Your task to perform on an android device: open app "ColorNote Notepad Notes" (install if not already installed) Image 0: 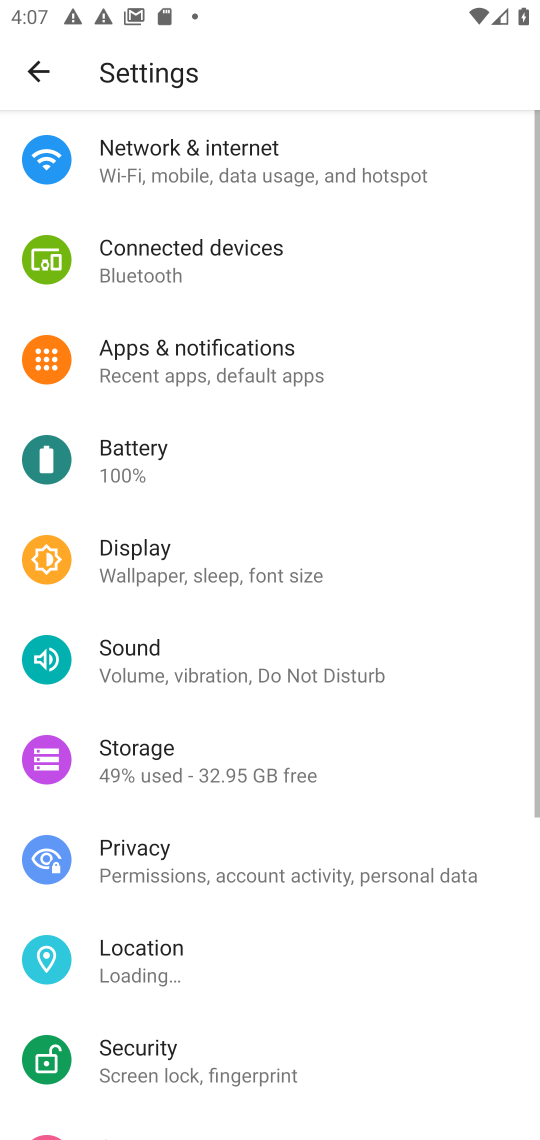
Step 0: press home button
Your task to perform on an android device: open app "ColorNote Notepad Notes" (install if not already installed) Image 1: 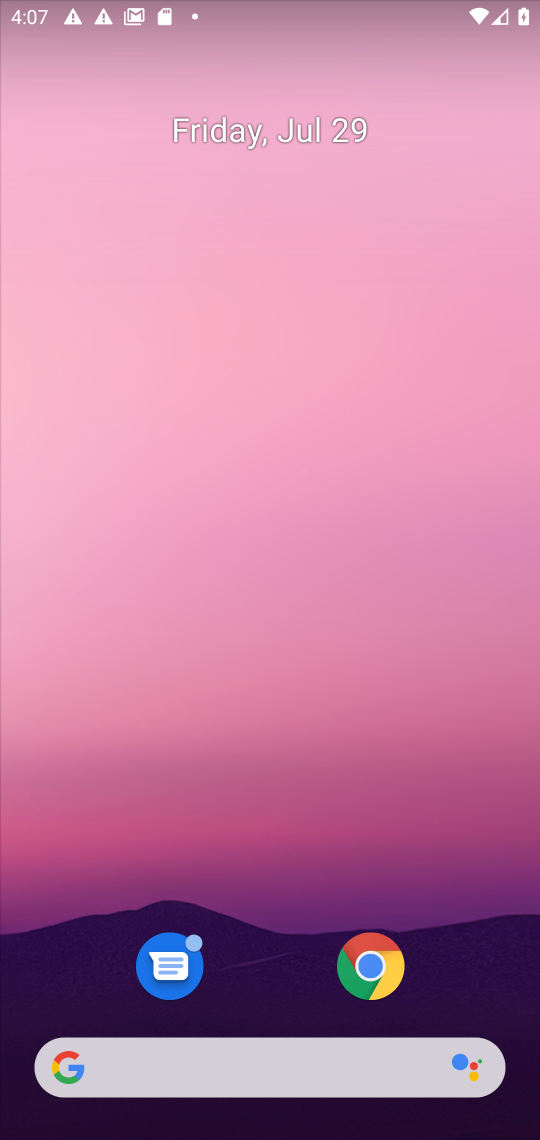
Step 1: drag from (195, 586) to (254, 128)
Your task to perform on an android device: open app "ColorNote Notepad Notes" (install if not already installed) Image 2: 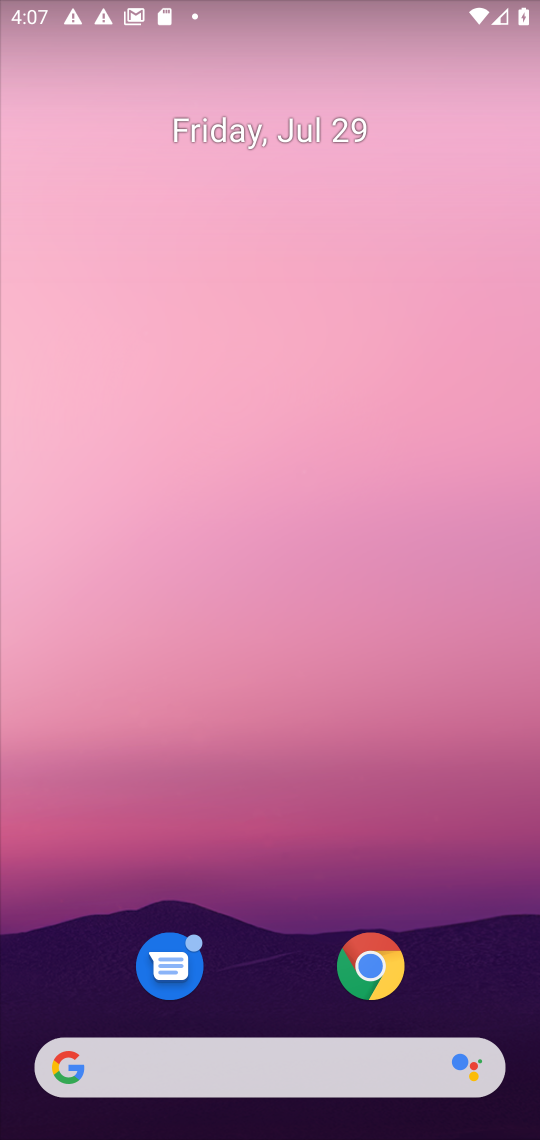
Step 2: drag from (290, 1005) to (189, 9)
Your task to perform on an android device: open app "ColorNote Notepad Notes" (install if not already installed) Image 3: 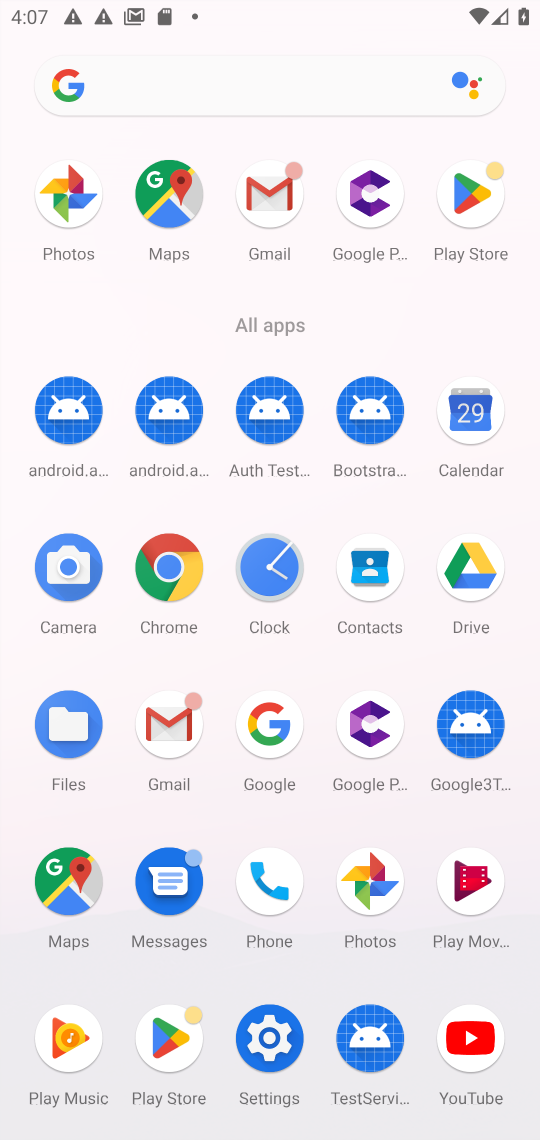
Step 3: click (164, 1038)
Your task to perform on an android device: open app "ColorNote Notepad Notes" (install if not already installed) Image 4: 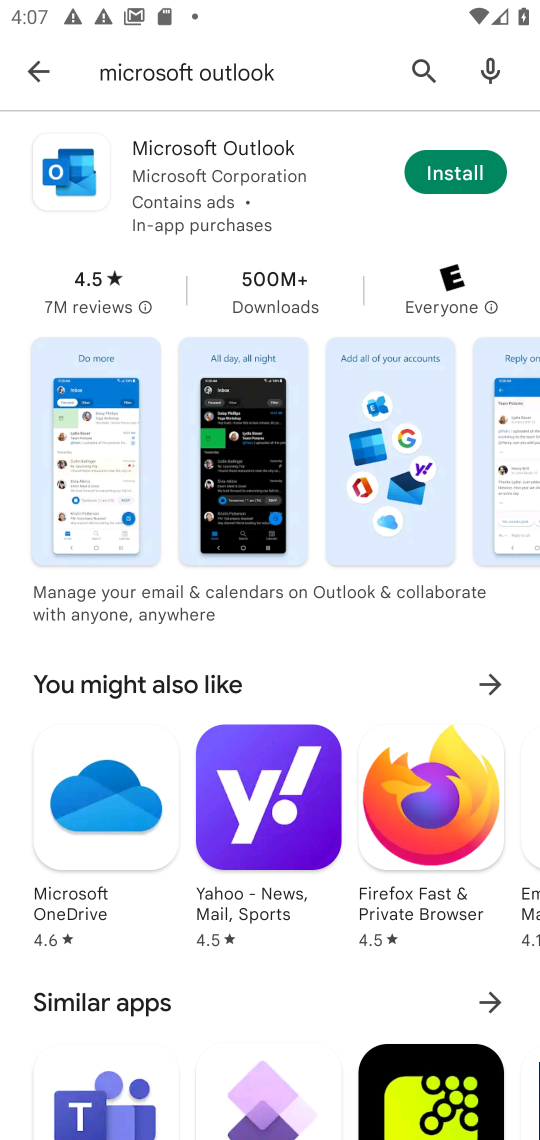
Step 4: click (225, 61)
Your task to perform on an android device: open app "ColorNote Notepad Notes" (install if not already installed) Image 5: 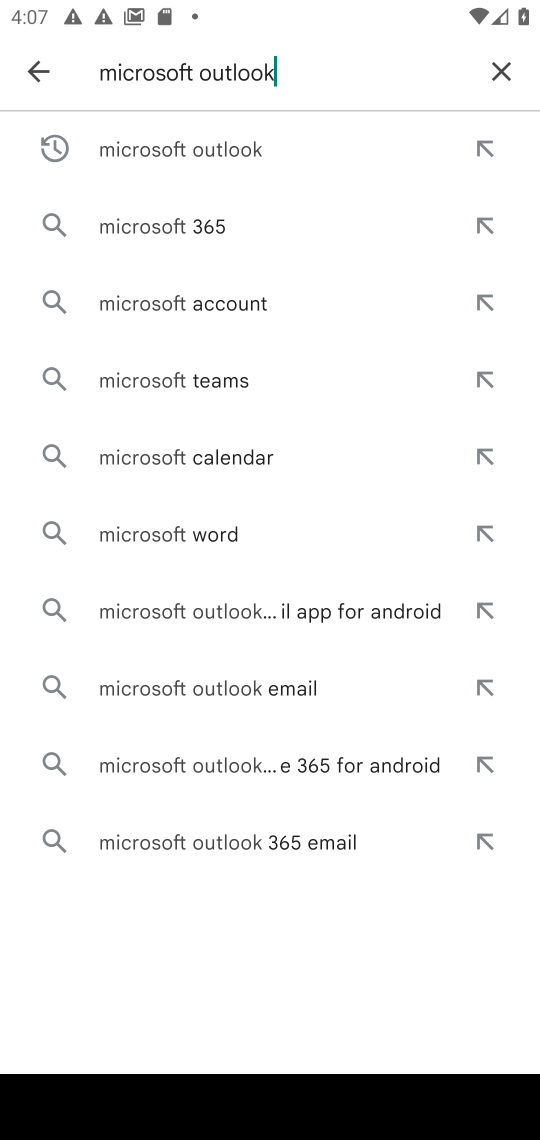
Step 5: click (503, 63)
Your task to perform on an android device: open app "ColorNote Notepad Notes" (install if not already installed) Image 6: 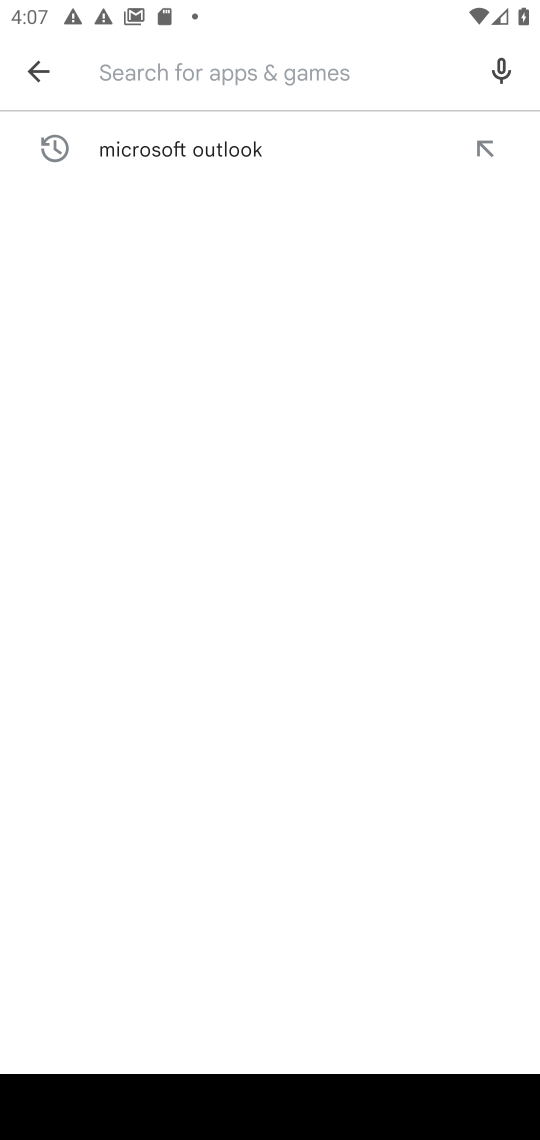
Step 6: type "ColorNote Notepad Notes"
Your task to perform on an android device: open app "ColorNote Notepad Notes" (install if not already installed) Image 7: 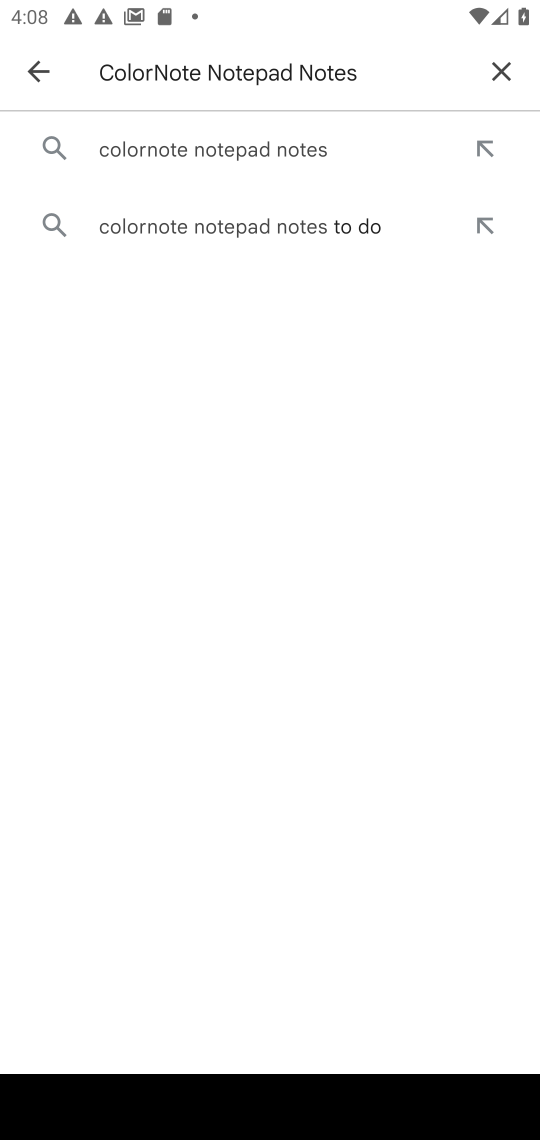
Step 7: click (285, 154)
Your task to perform on an android device: open app "ColorNote Notepad Notes" (install if not already installed) Image 8: 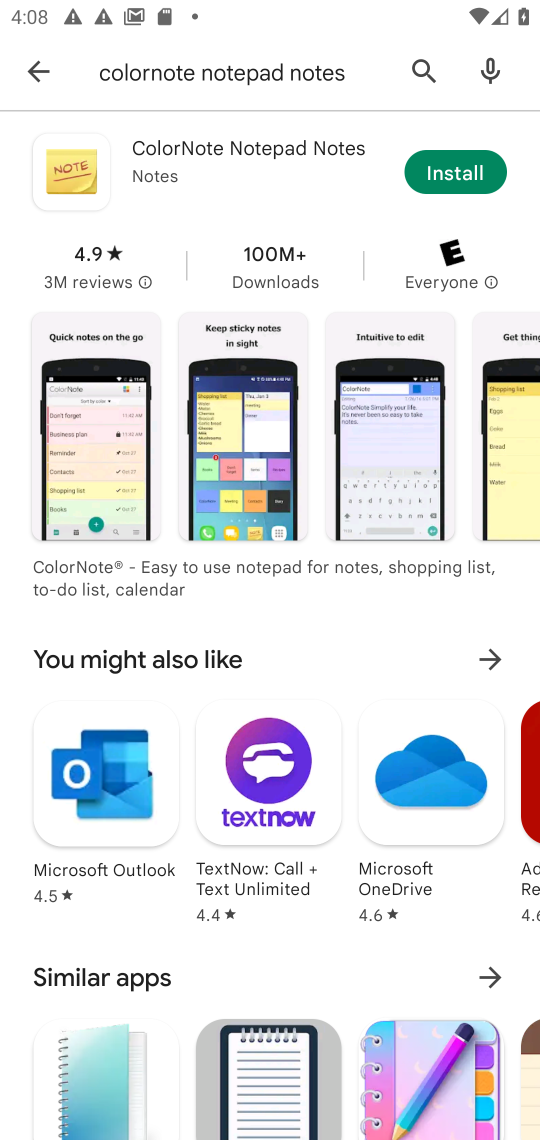
Step 8: click (471, 170)
Your task to perform on an android device: open app "ColorNote Notepad Notes" (install if not already installed) Image 9: 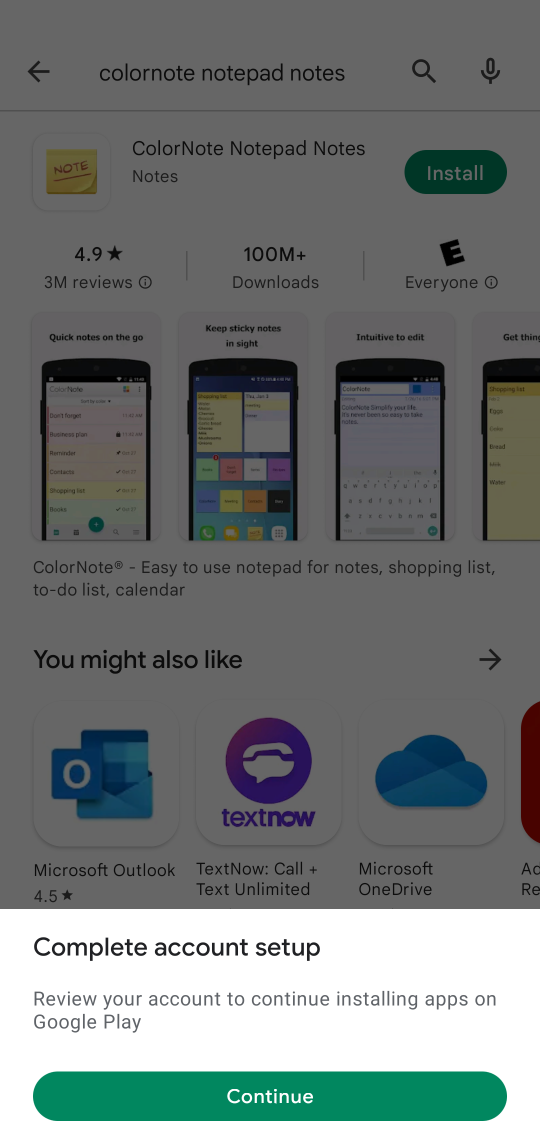
Step 9: click (170, 1103)
Your task to perform on an android device: open app "ColorNote Notepad Notes" (install if not already installed) Image 10: 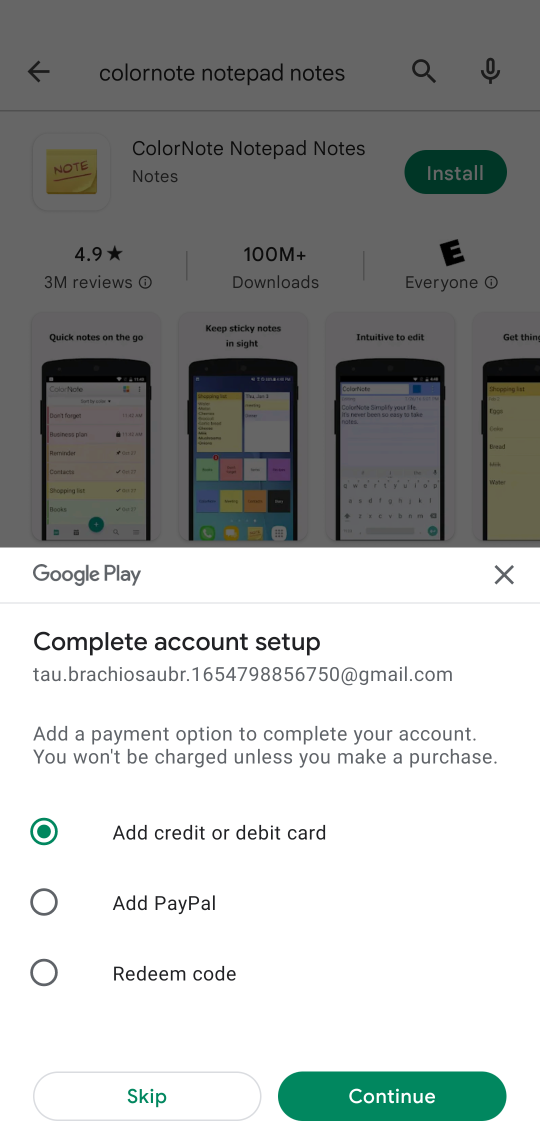
Step 10: click (140, 1066)
Your task to perform on an android device: open app "ColorNote Notepad Notes" (install if not already installed) Image 11: 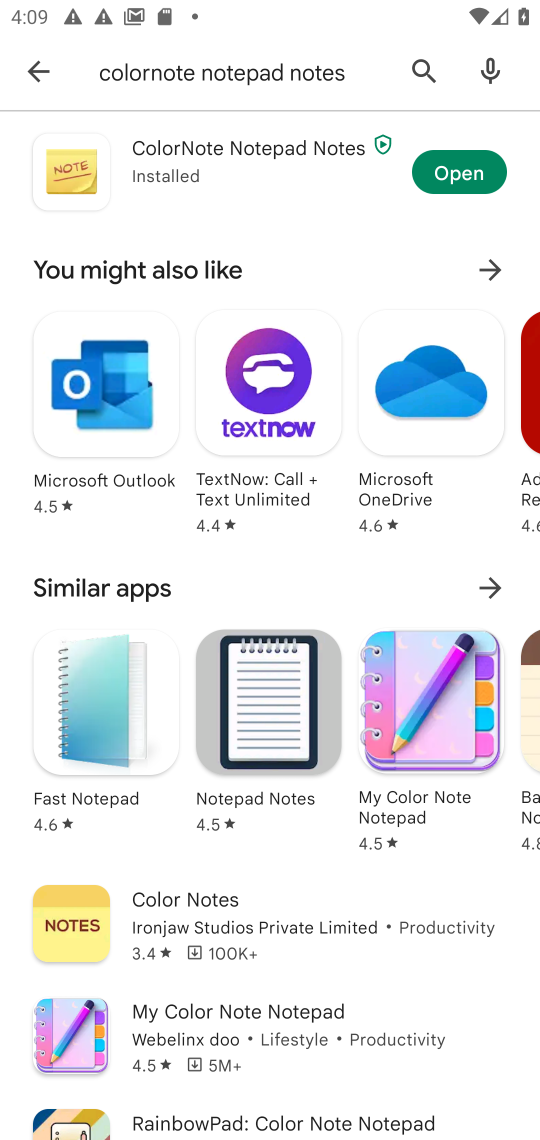
Step 11: click (468, 183)
Your task to perform on an android device: open app "ColorNote Notepad Notes" (install if not already installed) Image 12: 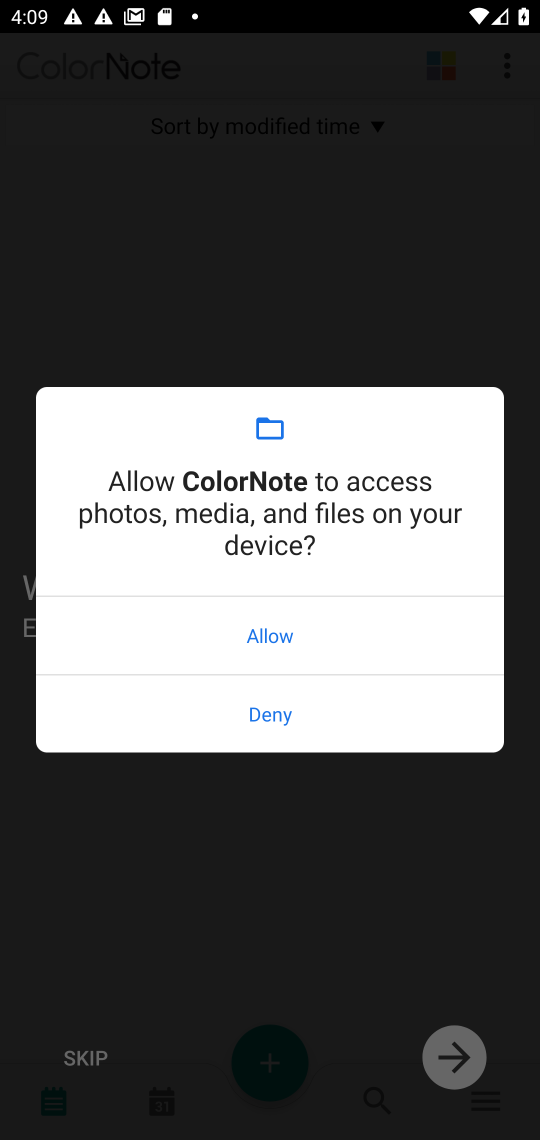
Step 12: click (275, 641)
Your task to perform on an android device: open app "ColorNote Notepad Notes" (install if not already installed) Image 13: 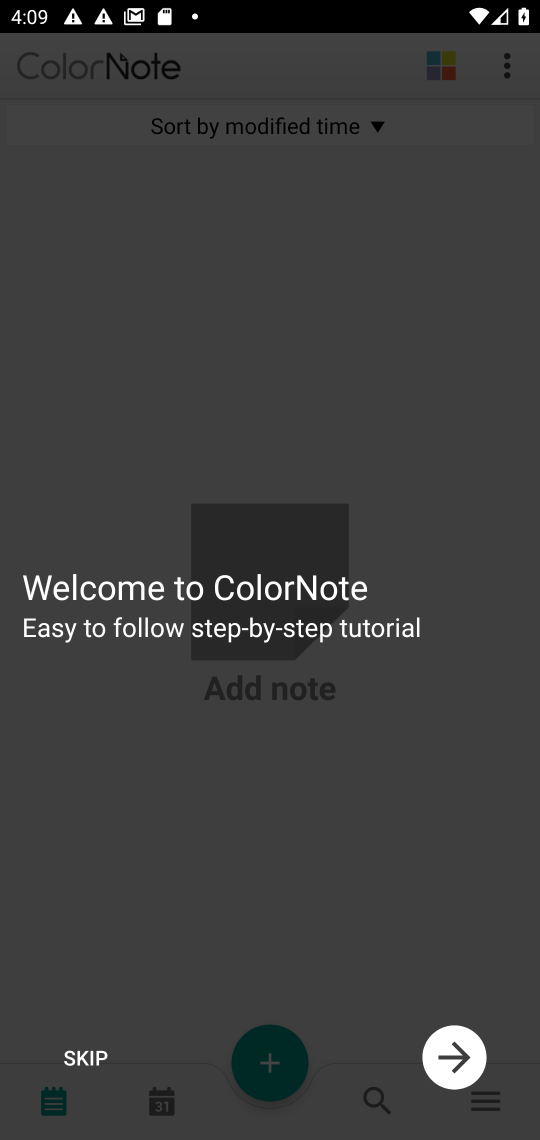
Step 13: click (81, 1056)
Your task to perform on an android device: open app "ColorNote Notepad Notes" (install if not already installed) Image 14: 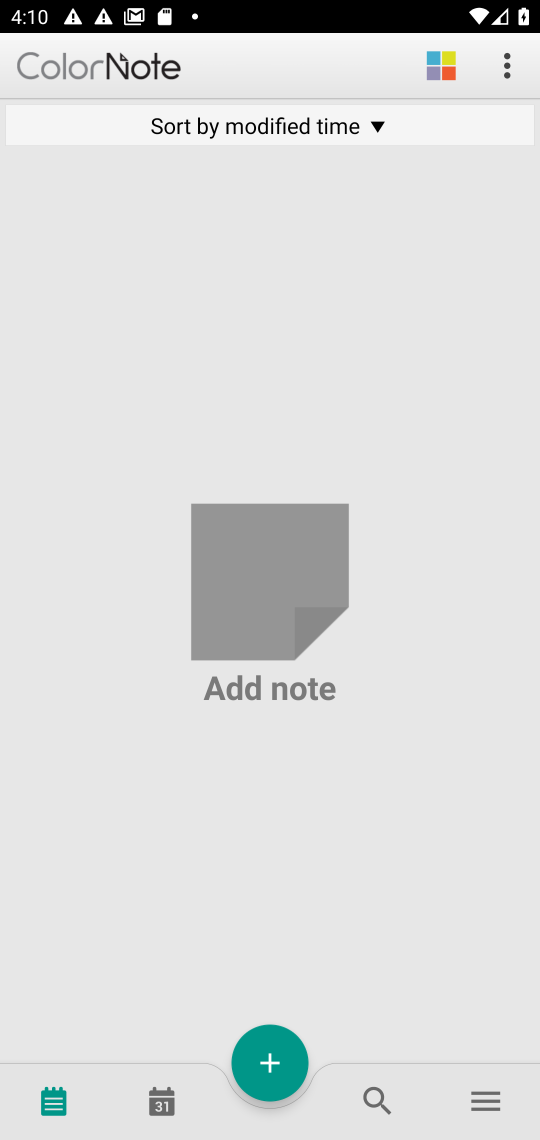
Step 14: task complete